Your task to perform on an android device: change the clock display to show seconds Image 0: 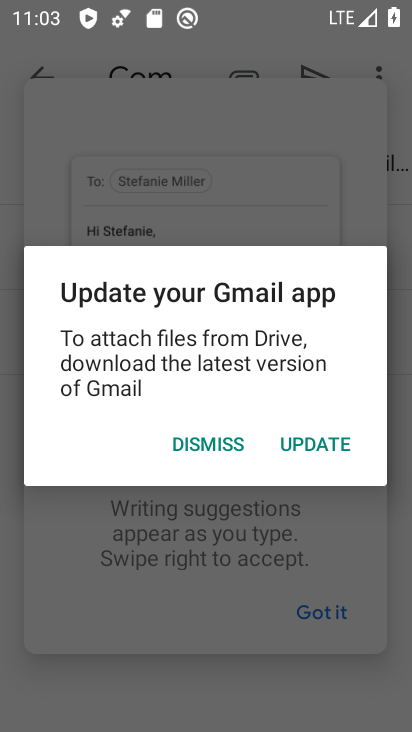
Step 0: press home button
Your task to perform on an android device: change the clock display to show seconds Image 1: 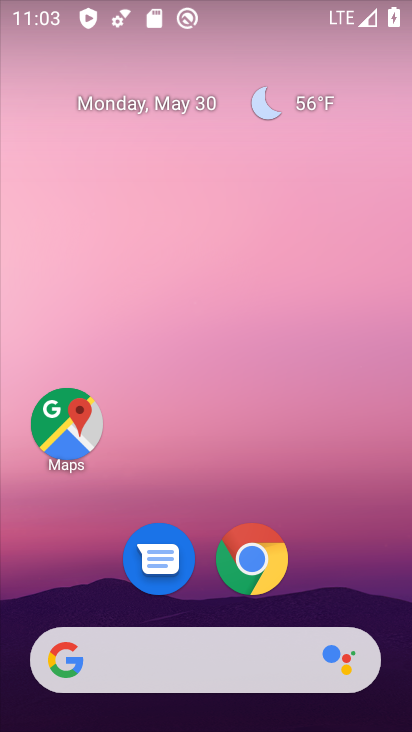
Step 1: drag from (357, 591) to (305, 159)
Your task to perform on an android device: change the clock display to show seconds Image 2: 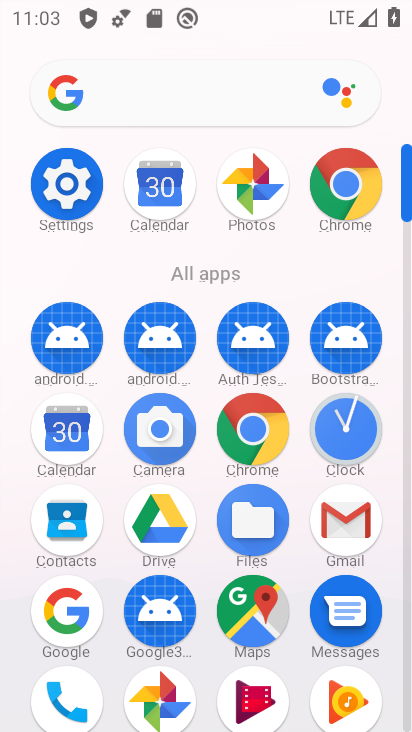
Step 2: click (361, 421)
Your task to perform on an android device: change the clock display to show seconds Image 3: 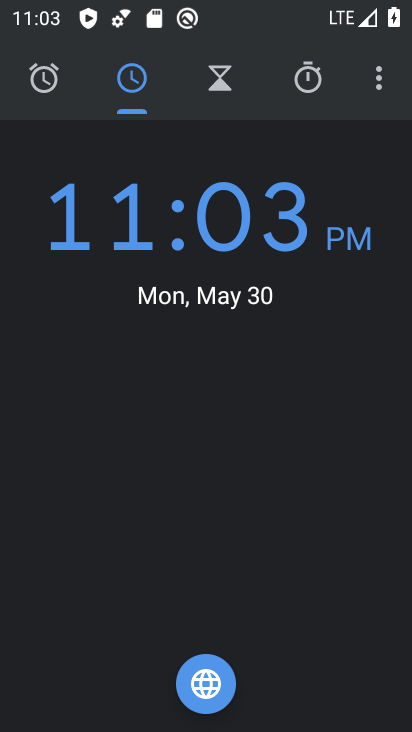
Step 3: click (387, 98)
Your task to perform on an android device: change the clock display to show seconds Image 4: 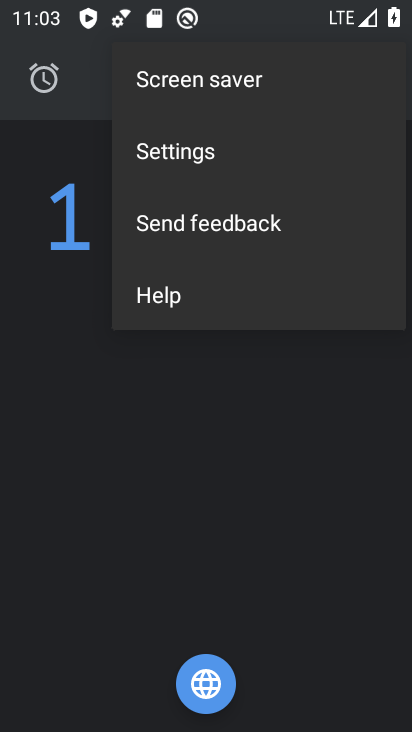
Step 4: click (274, 151)
Your task to perform on an android device: change the clock display to show seconds Image 5: 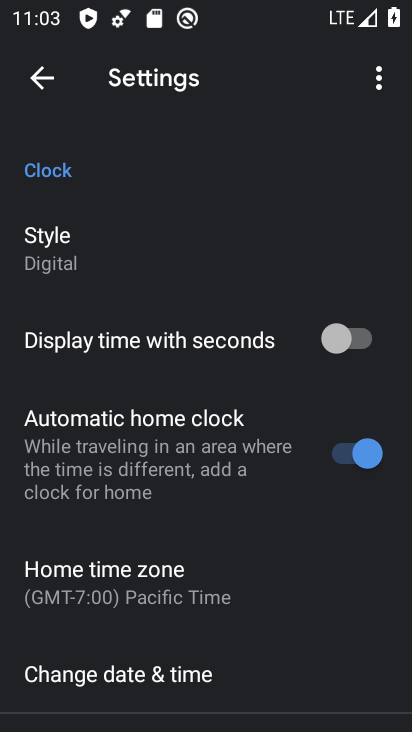
Step 5: click (377, 347)
Your task to perform on an android device: change the clock display to show seconds Image 6: 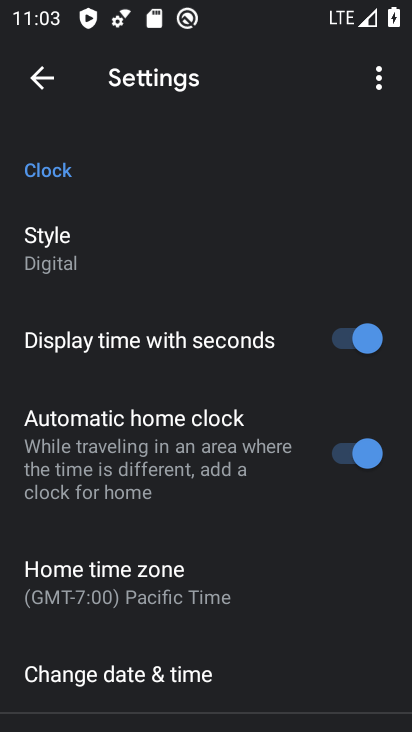
Step 6: task complete